Your task to perform on an android device: Open Chrome and go to settings Image 0: 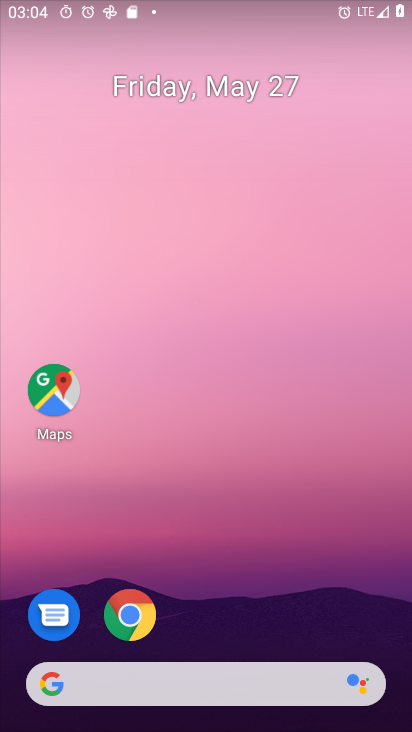
Step 0: drag from (371, 633) to (363, 365)
Your task to perform on an android device: Open Chrome and go to settings Image 1: 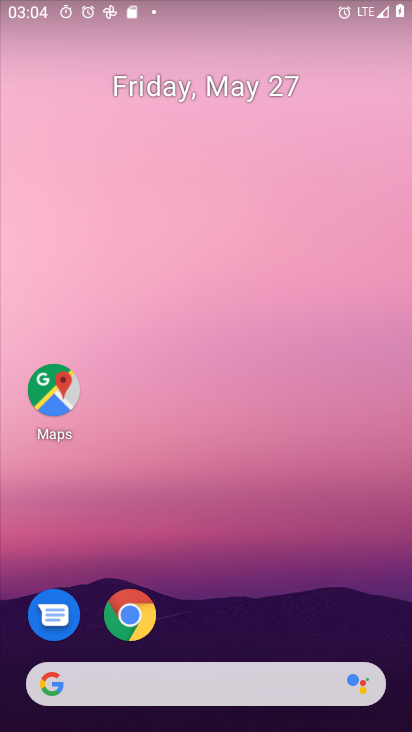
Step 1: drag from (337, 562) to (337, 201)
Your task to perform on an android device: Open Chrome and go to settings Image 2: 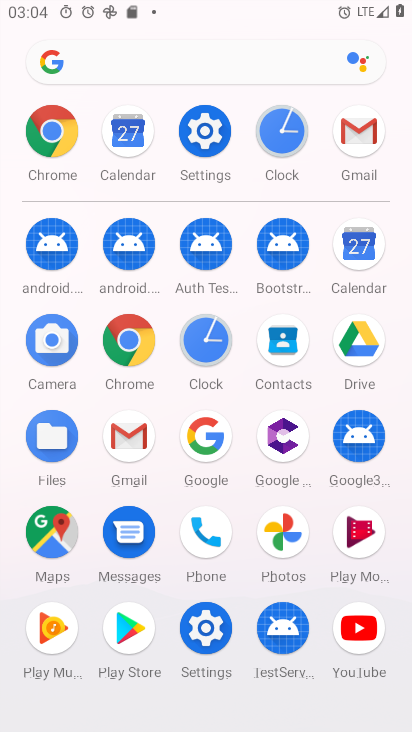
Step 2: click (143, 357)
Your task to perform on an android device: Open Chrome and go to settings Image 3: 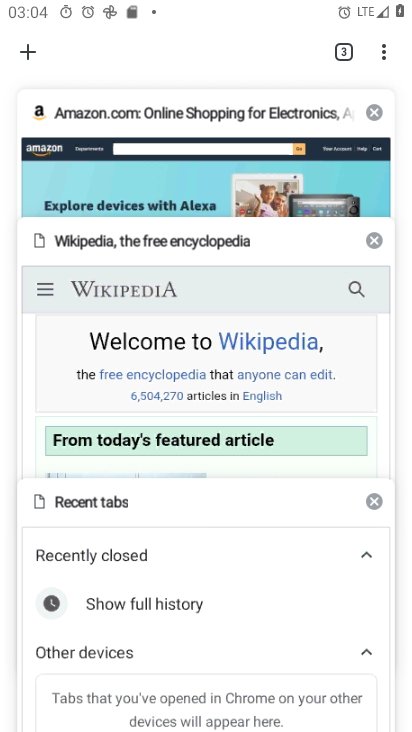
Step 3: click (388, 54)
Your task to perform on an android device: Open Chrome and go to settings Image 4: 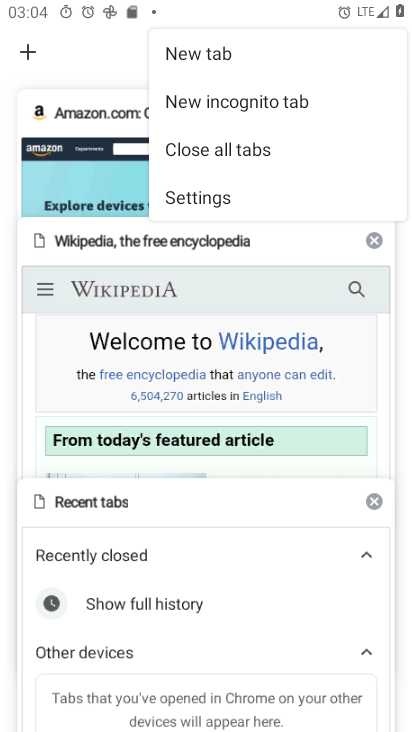
Step 4: click (242, 190)
Your task to perform on an android device: Open Chrome and go to settings Image 5: 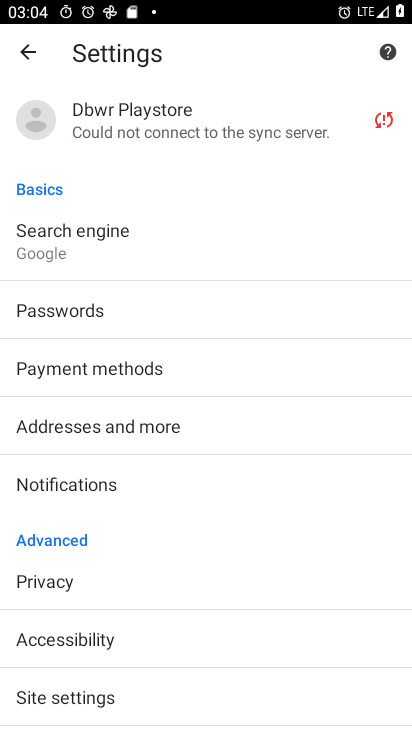
Step 5: task complete